Your task to perform on an android device: change alarm snooze length Image 0: 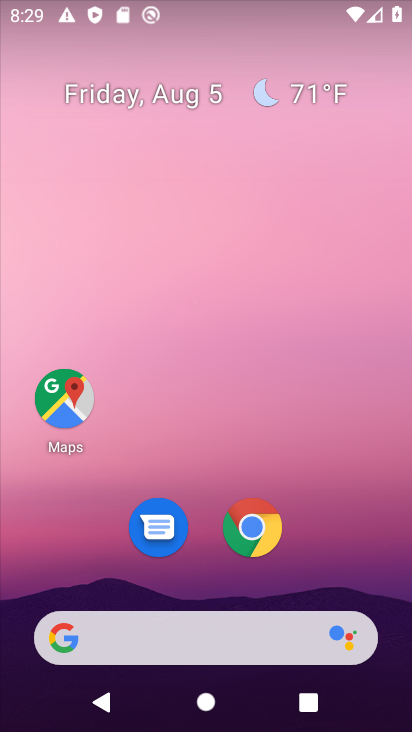
Step 0: drag from (339, 567) to (326, 11)
Your task to perform on an android device: change alarm snooze length Image 1: 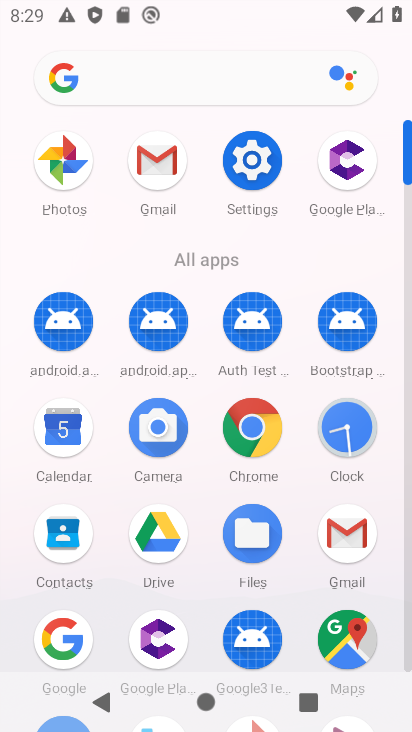
Step 1: click (363, 453)
Your task to perform on an android device: change alarm snooze length Image 2: 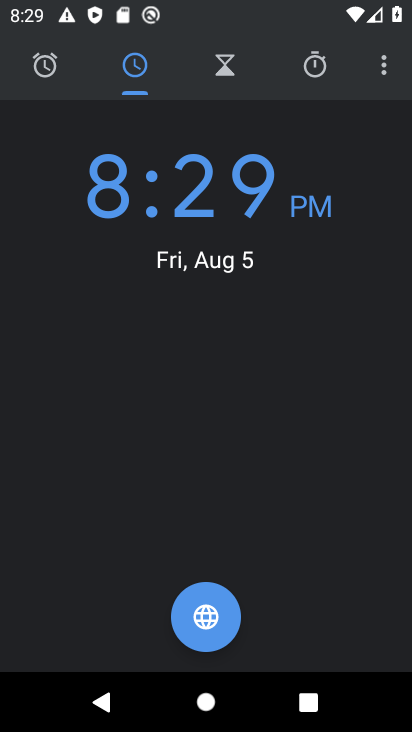
Step 2: click (389, 74)
Your task to perform on an android device: change alarm snooze length Image 3: 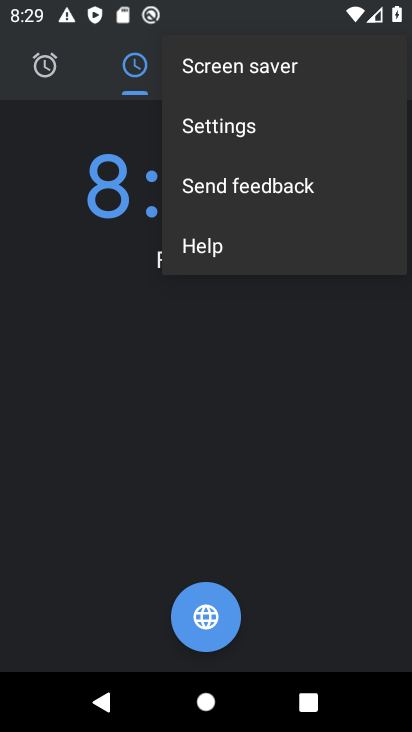
Step 3: click (250, 123)
Your task to perform on an android device: change alarm snooze length Image 4: 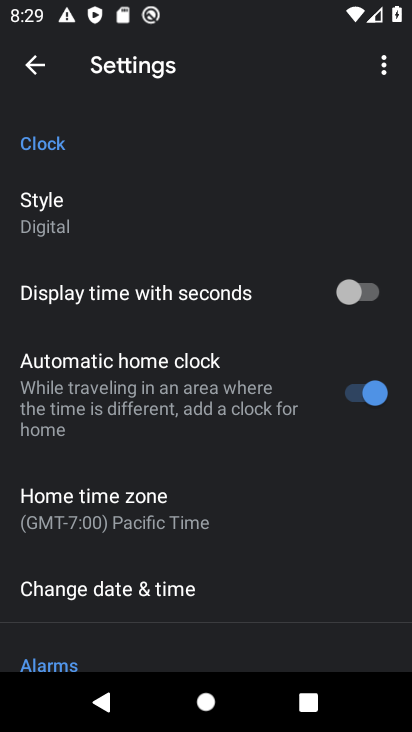
Step 4: drag from (157, 595) to (75, 113)
Your task to perform on an android device: change alarm snooze length Image 5: 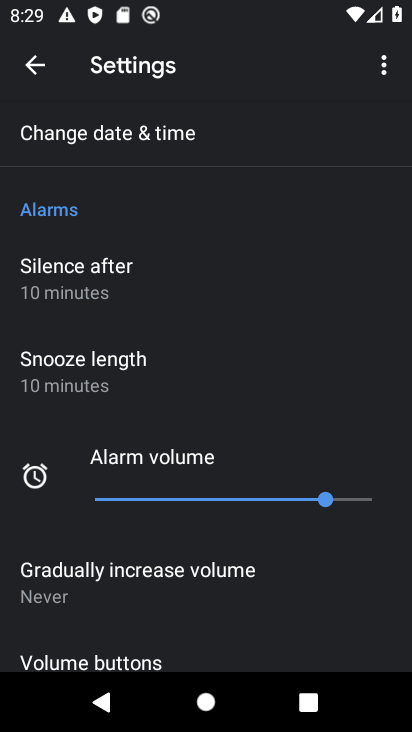
Step 5: click (38, 375)
Your task to perform on an android device: change alarm snooze length Image 6: 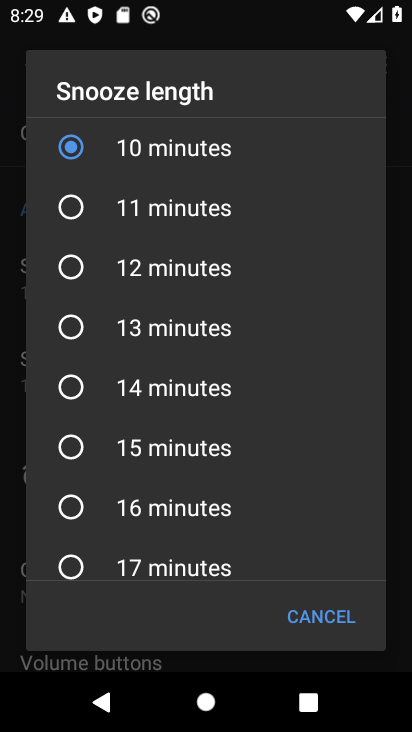
Step 6: click (126, 391)
Your task to perform on an android device: change alarm snooze length Image 7: 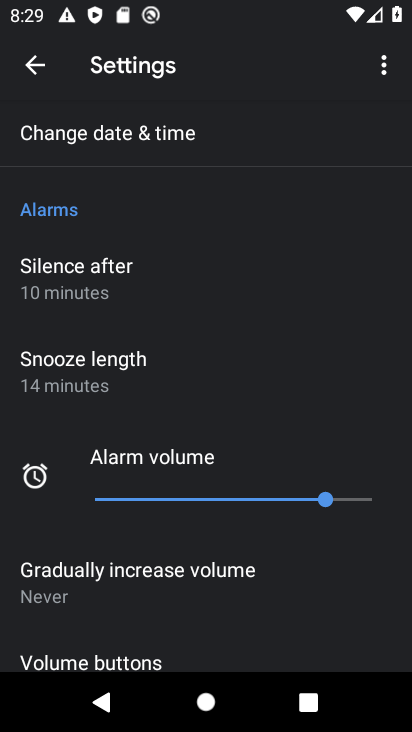
Step 7: task complete